Your task to perform on an android device: Open the calendar app, open the side menu, and click the "Day" option Image 0: 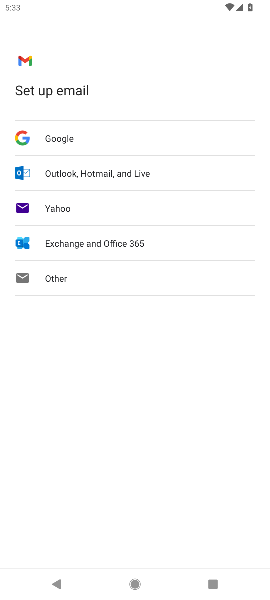
Step 0: press home button
Your task to perform on an android device: Open the calendar app, open the side menu, and click the "Day" option Image 1: 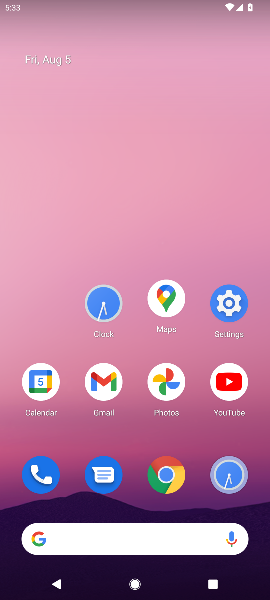
Step 1: click (39, 390)
Your task to perform on an android device: Open the calendar app, open the side menu, and click the "Day" option Image 2: 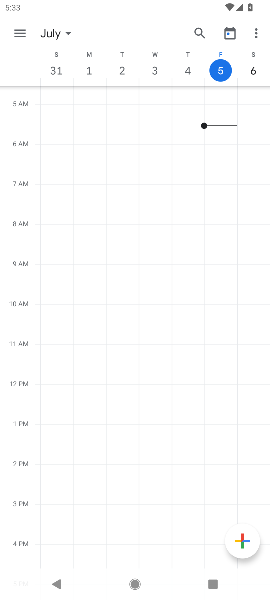
Step 2: click (22, 34)
Your task to perform on an android device: Open the calendar app, open the side menu, and click the "Day" option Image 3: 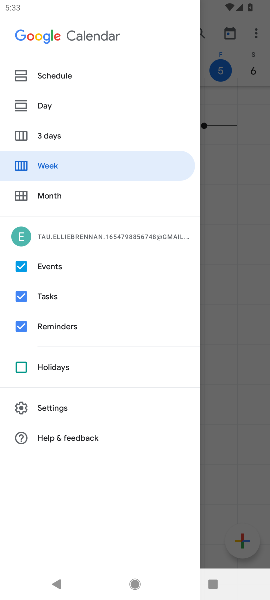
Step 3: click (40, 103)
Your task to perform on an android device: Open the calendar app, open the side menu, and click the "Day" option Image 4: 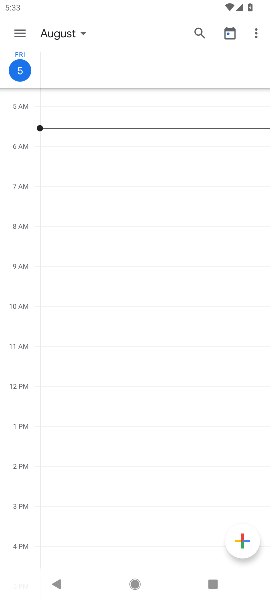
Step 4: task complete